Your task to perform on an android device: toggle improve location accuracy Image 0: 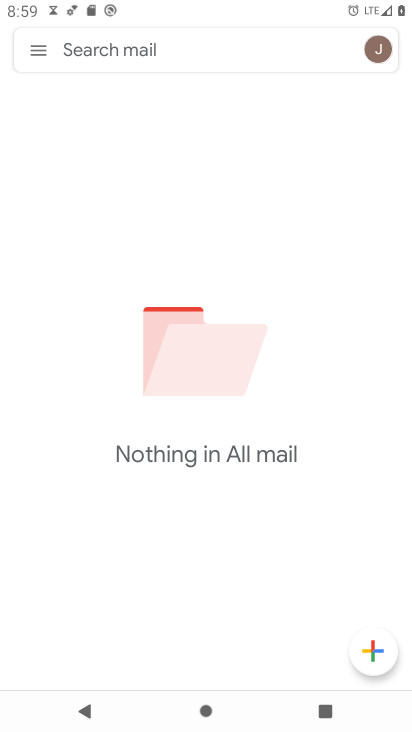
Step 0: press home button
Your task to perform on an android device: toggle improve location accuracy Image 1: 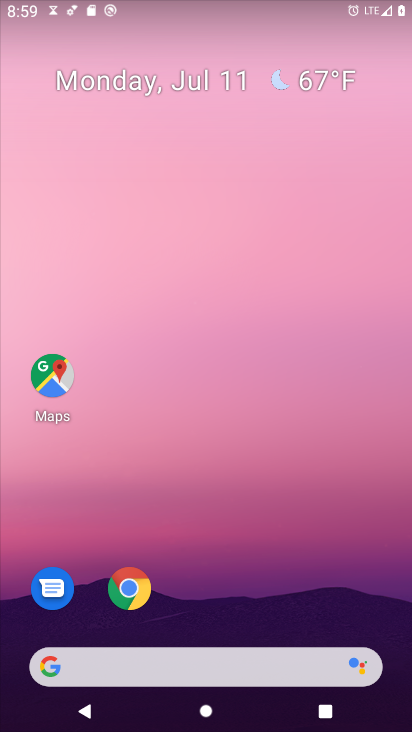
Step 1: drag from (273, 551) to (267, 85)
Your task to perform on an android device: toggle improve location accuracy Image 2: 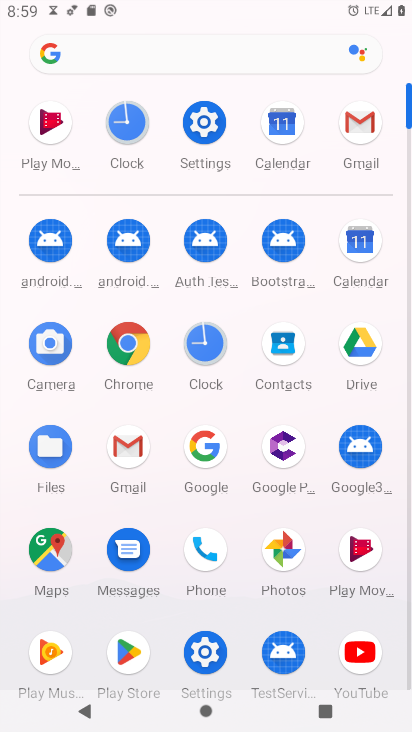
Step 2: click (201, 134)
Your task to perform on an android device: toggle improve location accuracy Image 3: 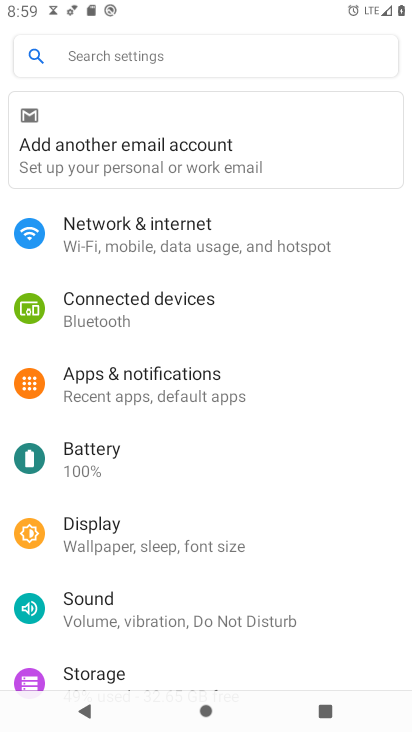
Step 3: drag from (173, 600) to (163, 341)
Your task to perform on an android device: toggle improve location accuracy Image 4: 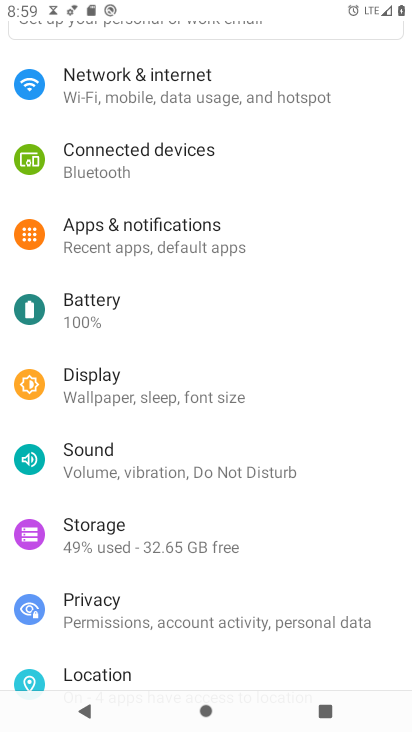
Step 4: click (156, 663)
Your task to perform on an android device: toggle improve location accuracy Image 5: 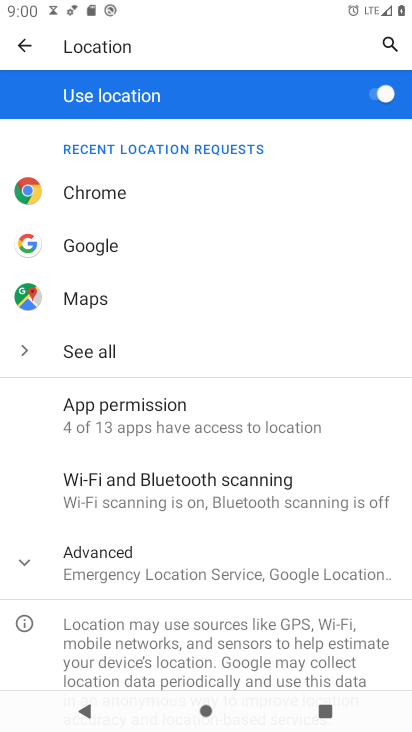
Step 5: click (177, 564)
Your task to perform on an android device: toggle improve location accuracy Image 6: 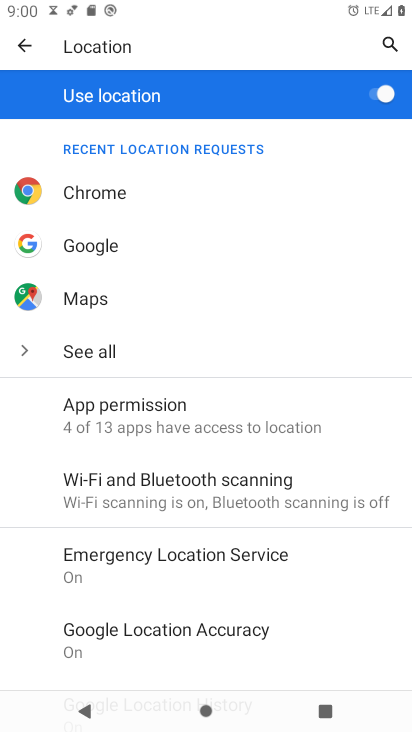
Step 6: click (171, 632)
Your task to perform on an android device: toggle improve location accuracy Image 7: 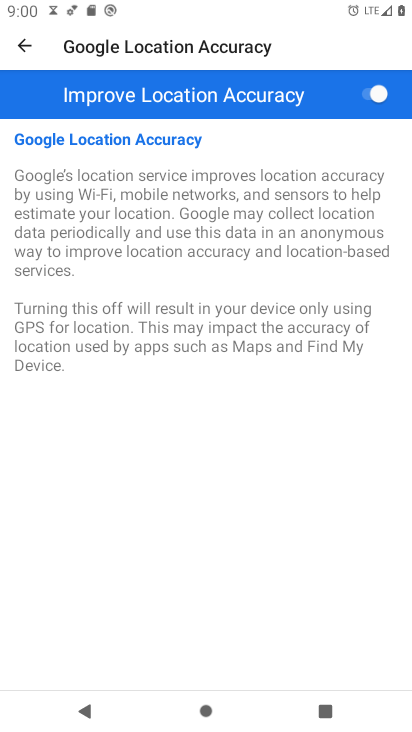
Step 7: click (357, 99)
Your task to perform on an android device: toggle improve location accuracy Image 8: 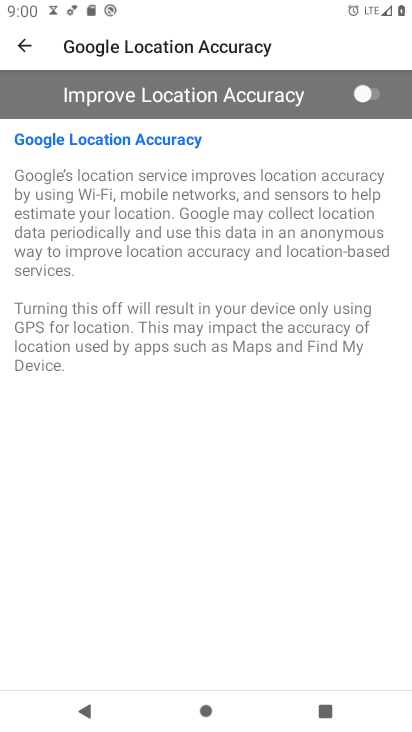
Step 8: task complete